Your task to perform on an android device: Go to calendar. Show me events next week Image 0: 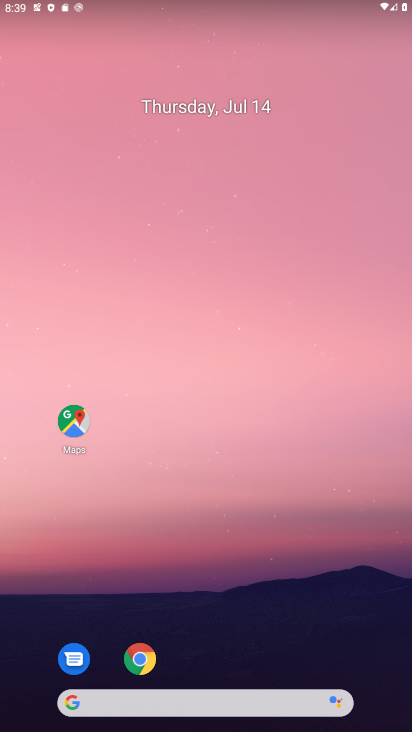
Step 0: drag from (237, 551) to (182, 143)
Your task to perform on an android device: Go to calendar. Show me events next week Image 1: 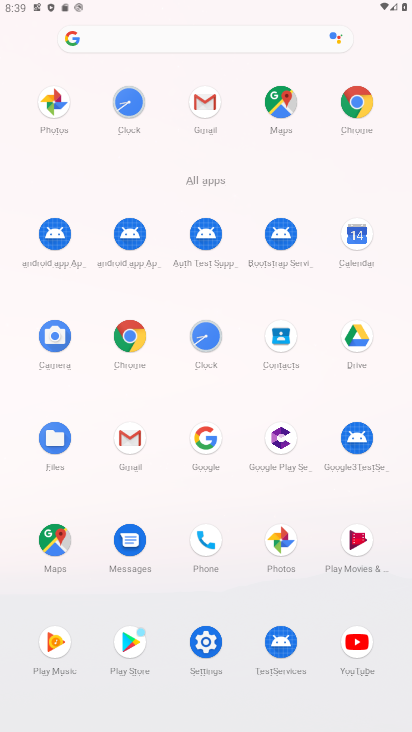
Step 1: click (348, 237)
Your task to perform on an android device: Go to calendar. Show me events next week Image 2: 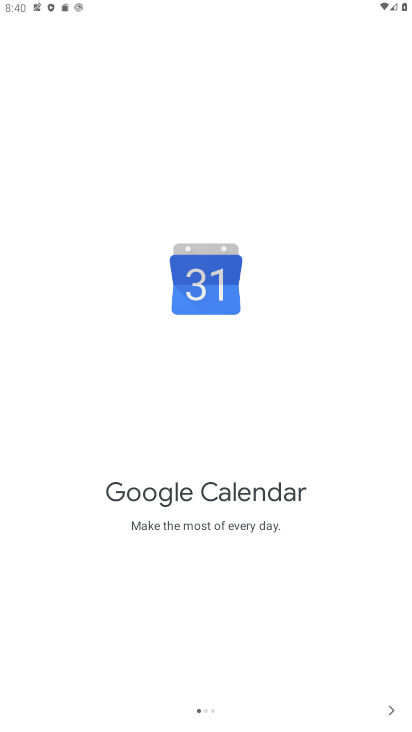
Step 2: click (391, 707)
Your task to perform on an android device: Go to calendar. Show me events next week Image 3: 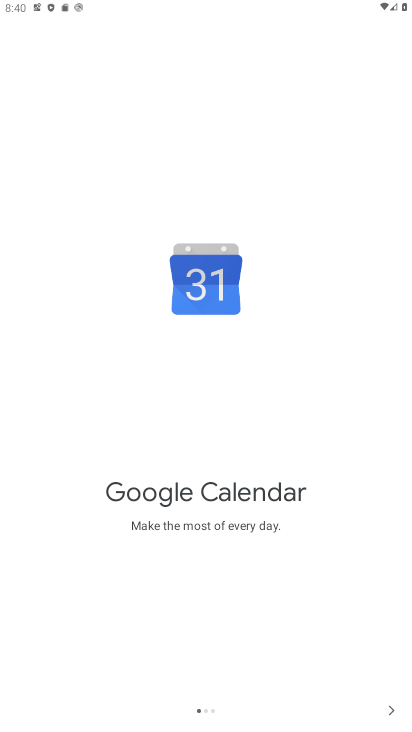
Step 3: click (391, 707)
Your task to perform on an android device: Go to calendar. Show me events next week Image 4: 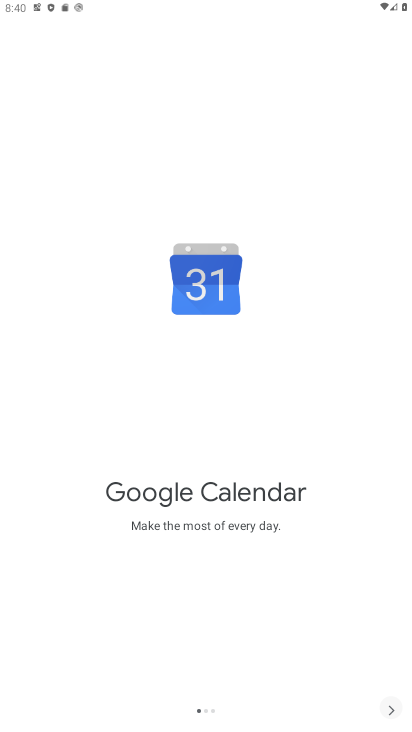
Step 4: click (391, 707)
Your task to perform on an android device: Go to calendar. Show me events next week Image 5: 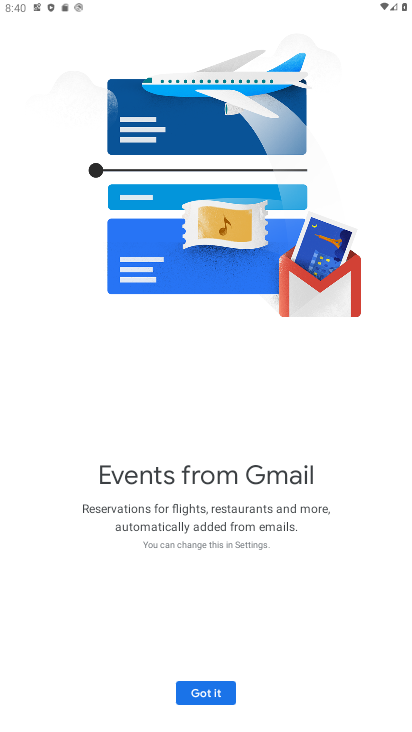
Step 5: click (211, 693)
Your task to perform on an android device: Go to calendar. Show me events next week Image 6: 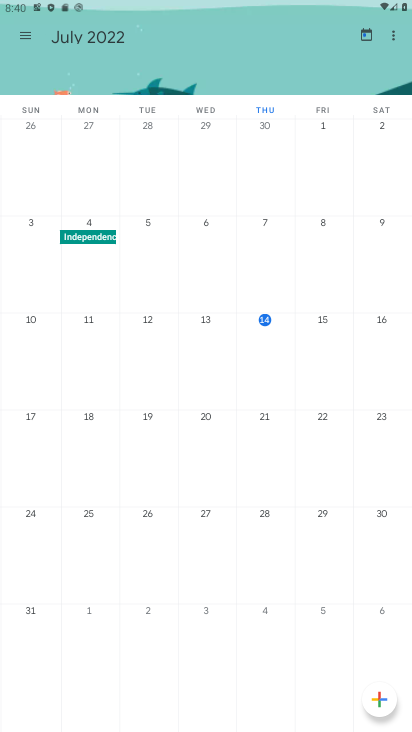
Step 6: click (16, 29)
Your task to perform on an android device: Go to calendar. Show me events next week Image 7: 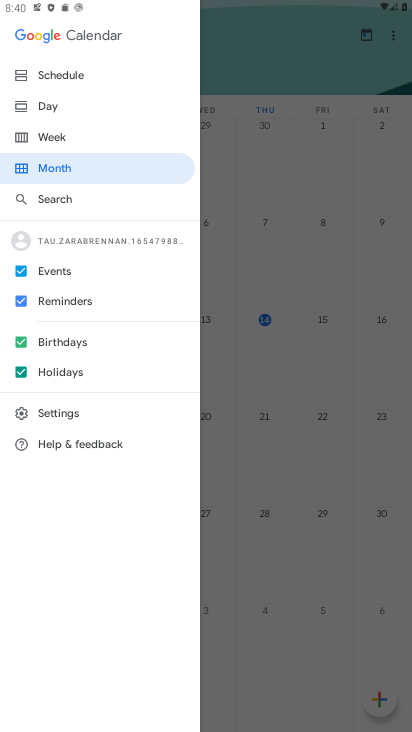
Step 7: click (53, 133)
Your task to perform on an android device: Go to calendar. Show me events next week Image 8: 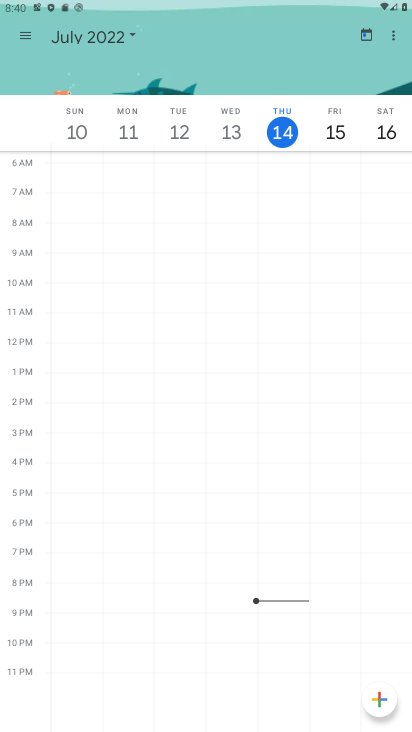
Step 8: click (133, 38)
Your task to perform on an android device: Go to calendar. Show me events next week Image 9: 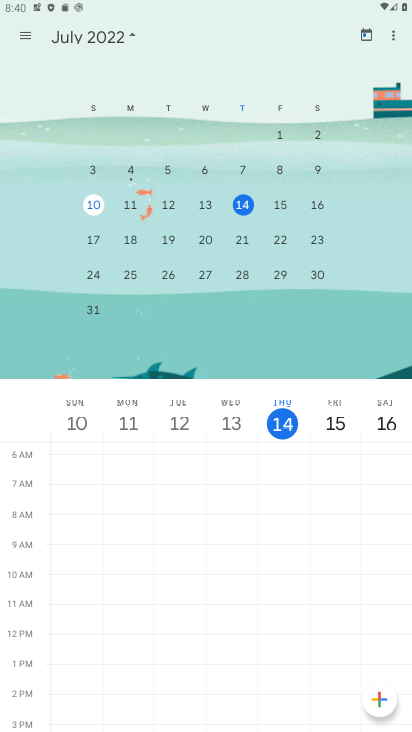
Step 9: click (204, 231)
Your task to perform on an android device: Go to calendar. Show me events next week Image 10: 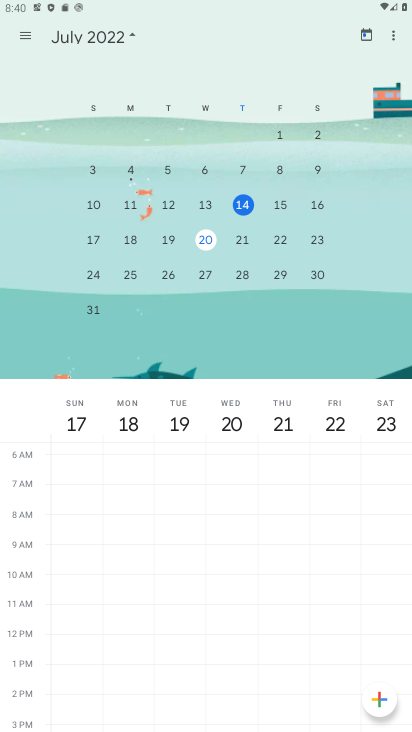
Step 10: task complete